Your task to perform on an android device: add a label to a message in the gmail app Image 0: 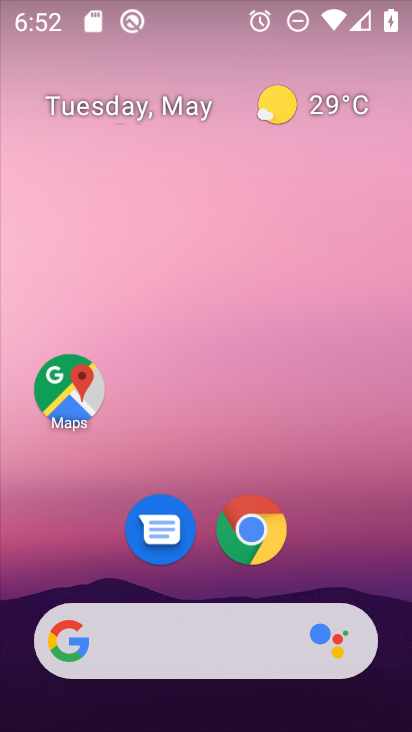
Step 0: drag from (374, 620) to (306, 40)
Your task to perform on an android device: add a label to a message in the gmail app Image 1: 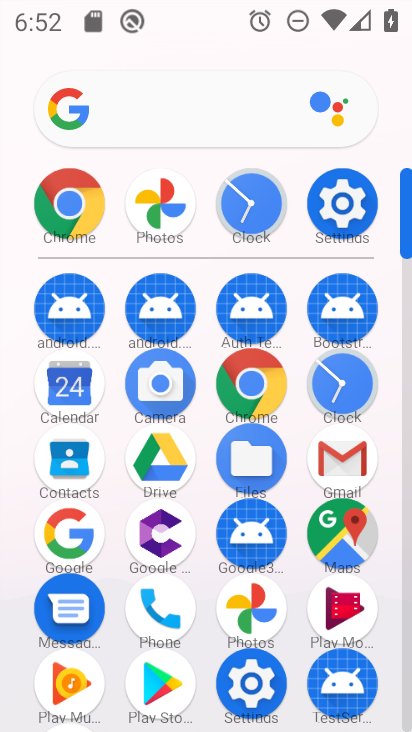
Step 1: click (334, 447)
Your task to perform on an android device: add a label to a message in the gmail app Image 2: 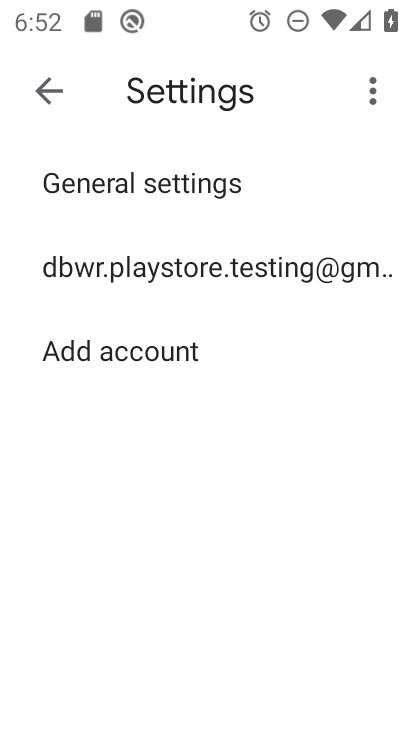
Step 2: task complete